Your task to perform on an android device: toggle improve location accuracy Image 0: 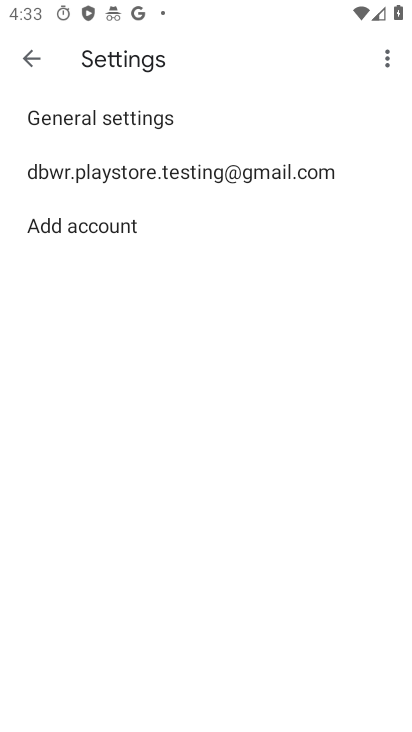
Step 0: press home button
Your task to perform on an android device: toggle improve location accuracy Image 1: 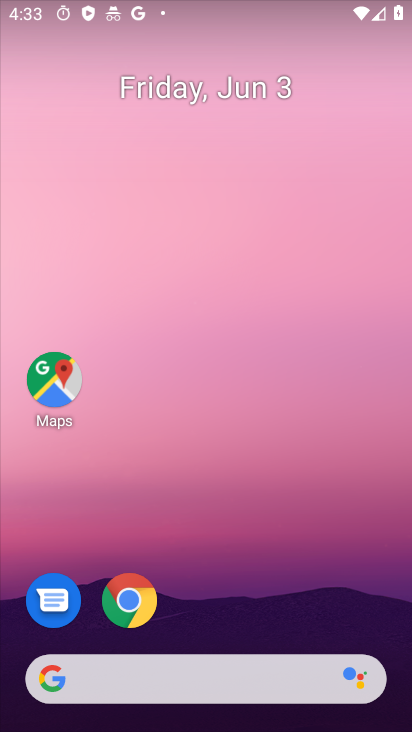
Step 1: drag from (397, 707) to (315, 146)
Your task to perform on an android device: toggle improve location accuracy Image 2: 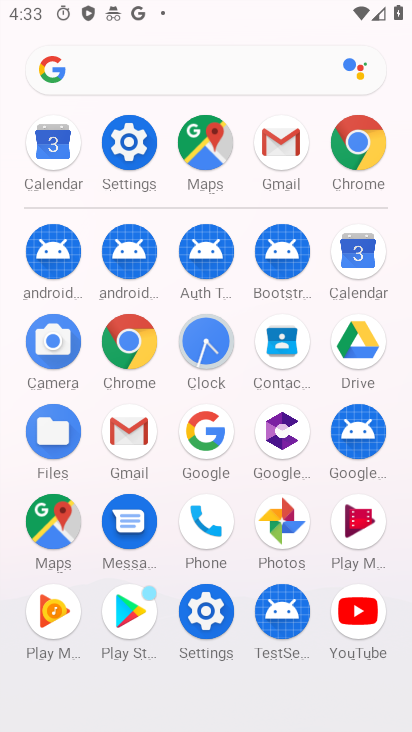
Step 2: click (199, 605)
Your task to perform on an android device: toggle improve location accuracy Image 3: 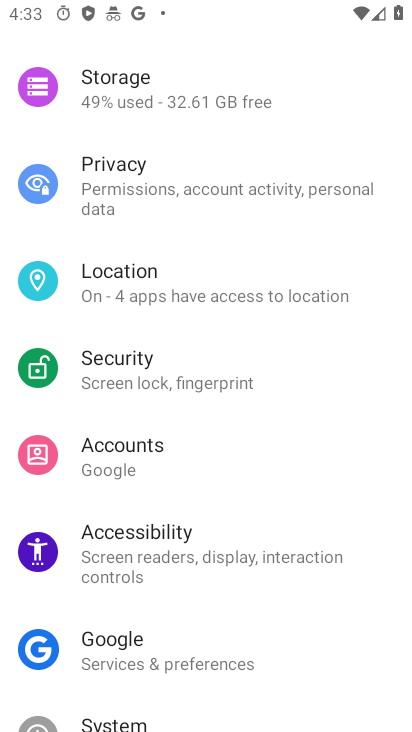
Step 3: click (111, 285)
Your task to perform on an android device: toggle improve location accuracy Image 4: 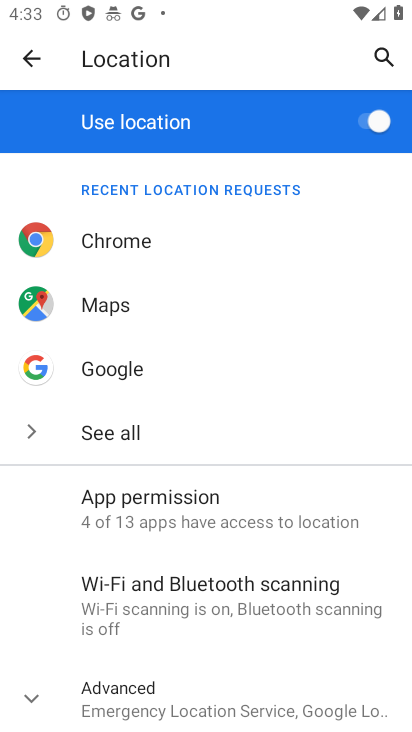
Step 4: drag from (275, 656) to (230, 304)
Your task to perform on an android device: toggle improve location accuracy Image 5: 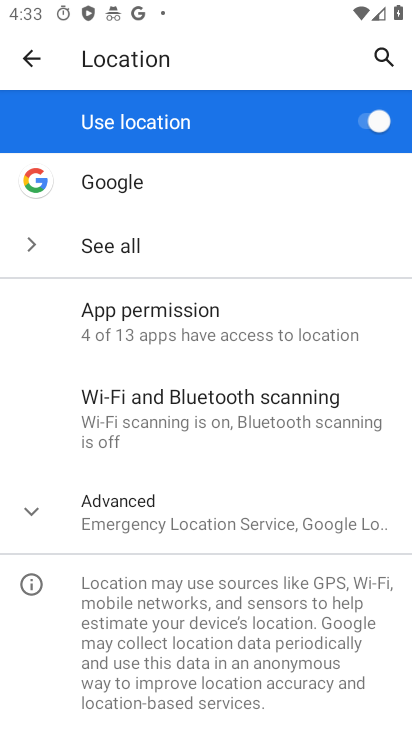
Step 5: click (43, 512)
Your task to perform on an android device: toggle improve location accuracy Image 6: 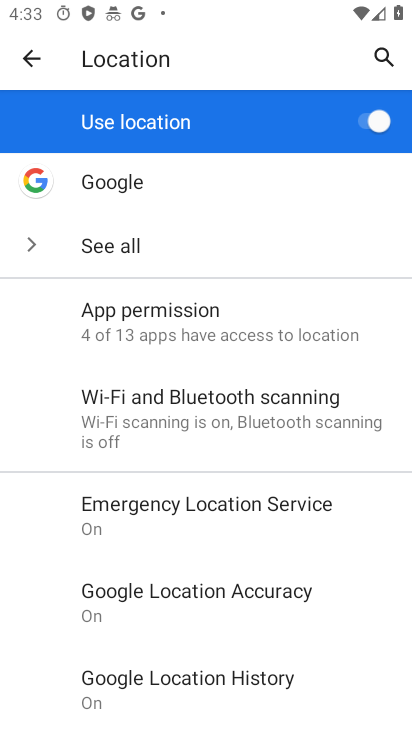
Step 6: drag from (365, 684) to (356, 460)
Your task to perform on an android device: toggle improve location accuracy Image 7: 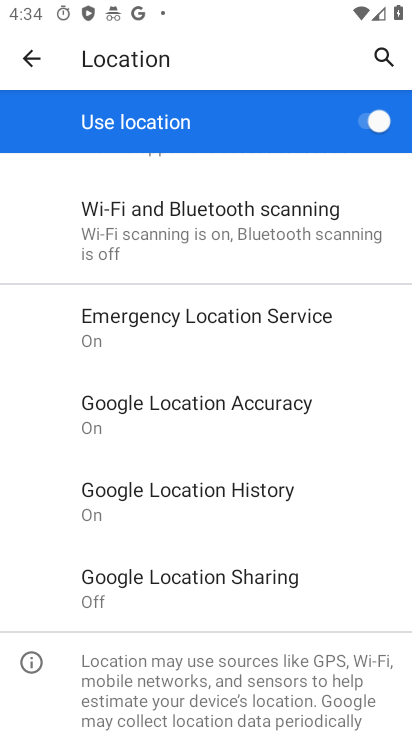
Step 7: click (205, 407)
Your task to perform on an android device: toggle improve location accuracy Image 8: 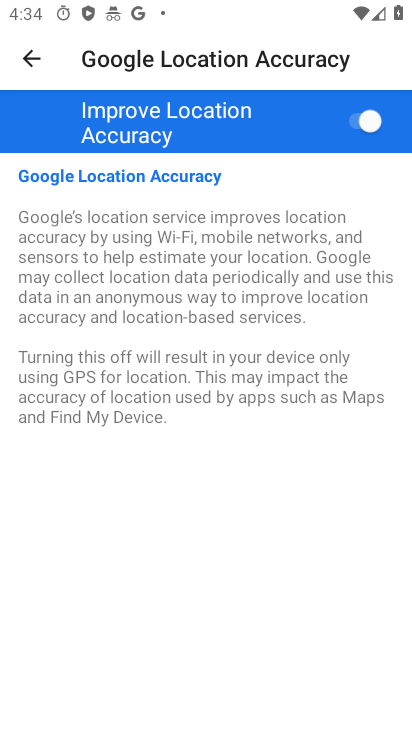
Step 8: click (351, 122)
Your task to perform on an android device: toggle improve location accuracy Image 9: 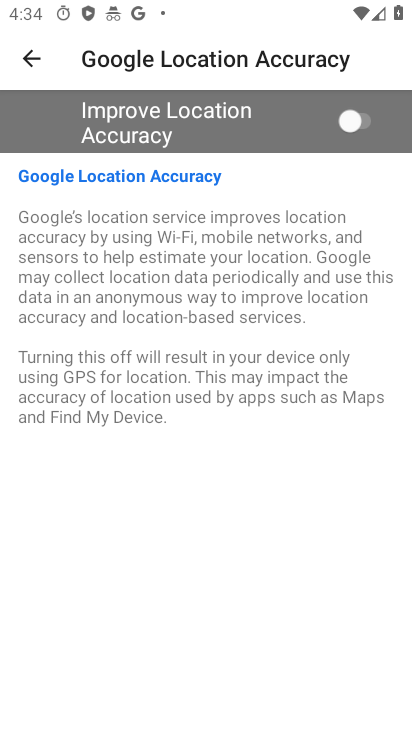
Step 9: task complete